Your task to perform on an android device: What's the weather? Image 0: 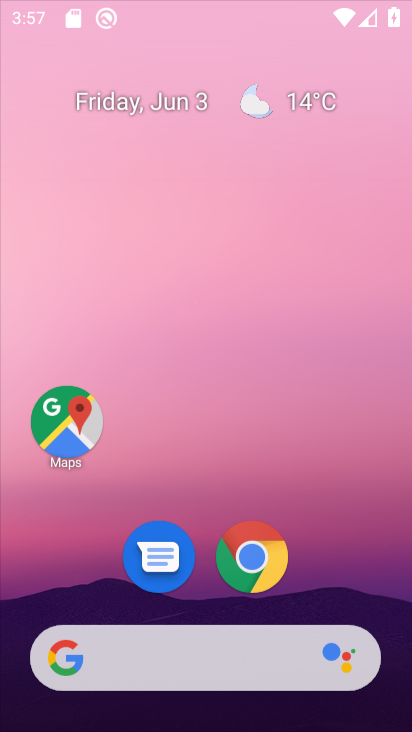
Step 0: drag from (28, 86) to (409, 403)
Your task to perform on an android device: What's the weather? Image 1: 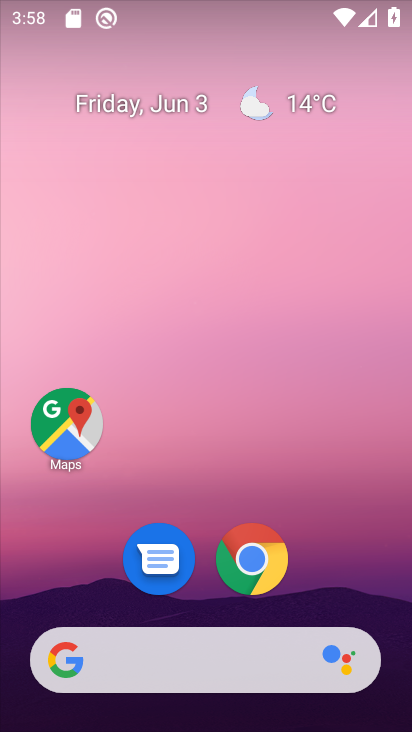
Step 1: click (410, 480)
Your task to perform on an android device: What's the weather? Image 2: 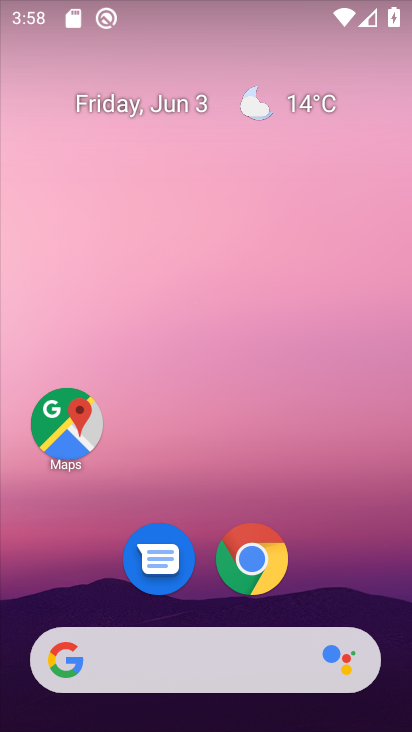
Step 2: click (374, 517)
Your task to perform on an android device: What's the weather? Image 3: 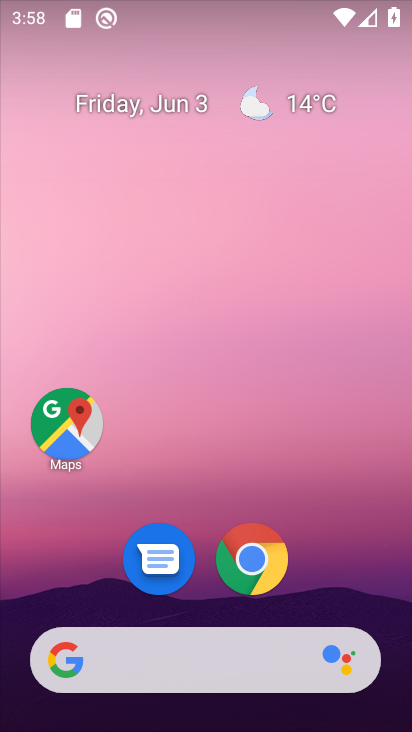
Step 3: drag from (358, 477) to (348, 436)
Your task to perform on an android device: What's the weather? Image 4: 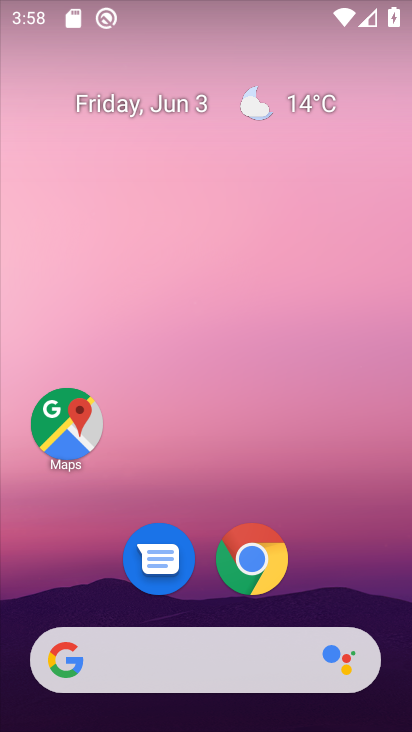
Step 4: drag from (360, 444) to (397, 373)
Your task to perform on an android device: What's the weather? Image 5: 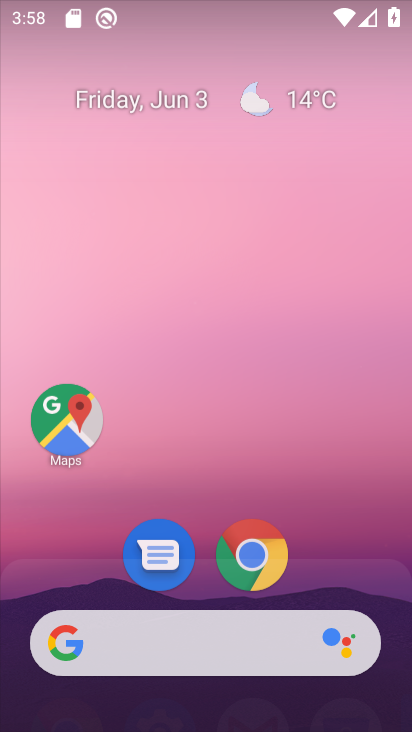
Step 5: drag from (43, 186) to (411, 532)
Your task to perform on an android device: What's the weather? Image 6: 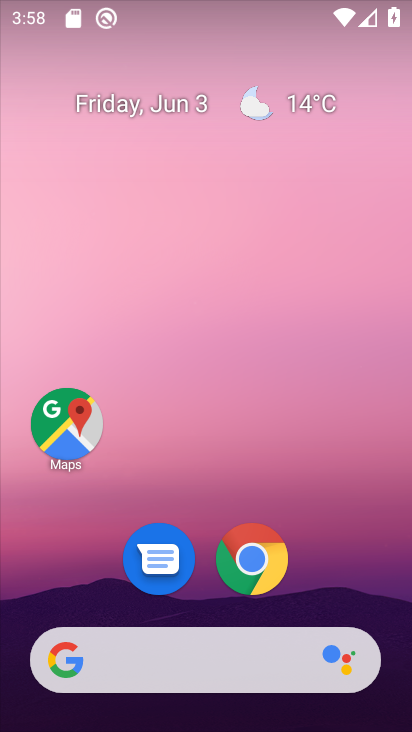
Step 6: drag from (32, 223) to (403, 577)
Your task to perform on an android device: What's the weather? Image 7: 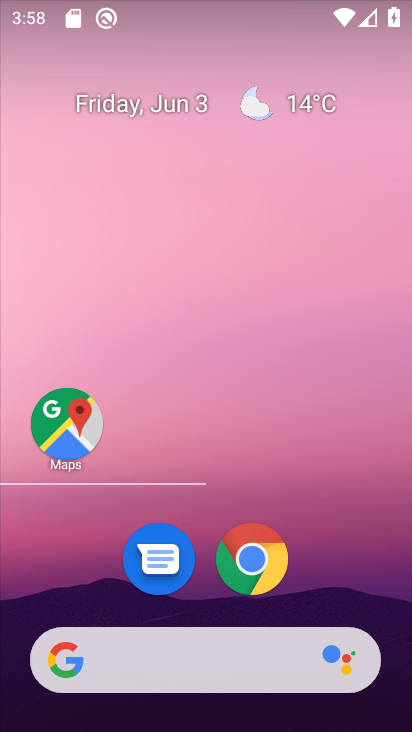
Step 7: drag from (56, 186) to (398, 511)
Your task to perform on an android device: What's the weather? Image 8: 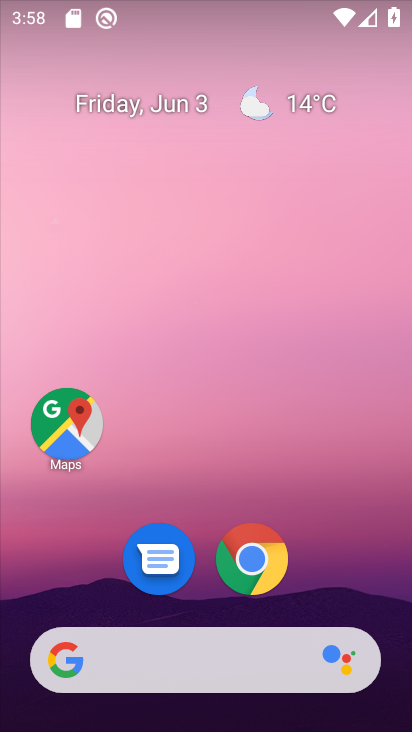
Step 8: drag from (100, 205) to (381, 452)
Your task to perform on an android device: What's the weather? Image 9: 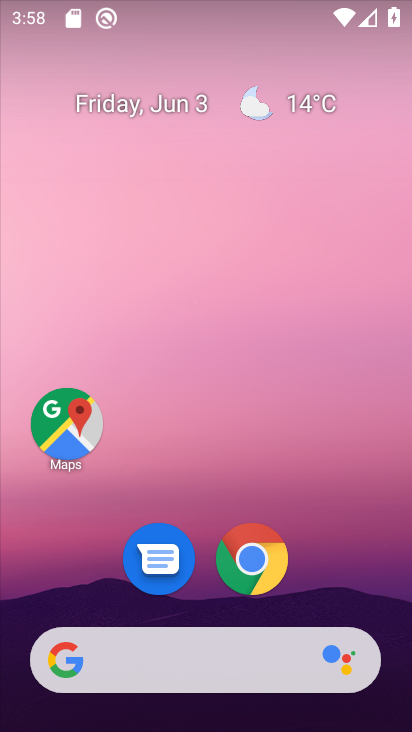
Step 9: drag from (91, 180) to (369, 430)
Your task to perform on an android device: What's the weather? Image 10: 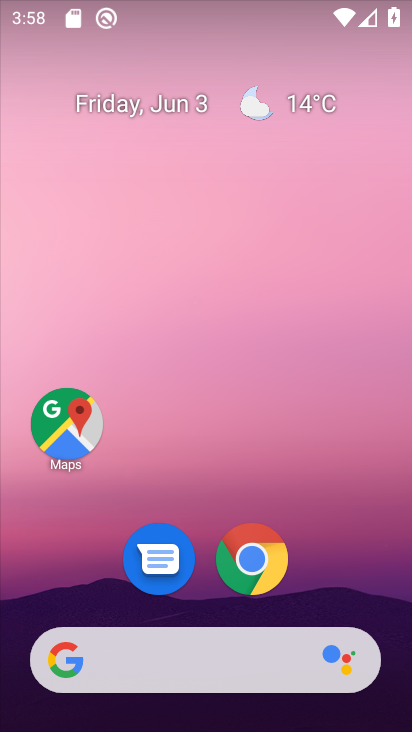
Step 10: drag from (29, 142) to (275, 497)
Your task to perform on an android device: What's the weather? Image 11: 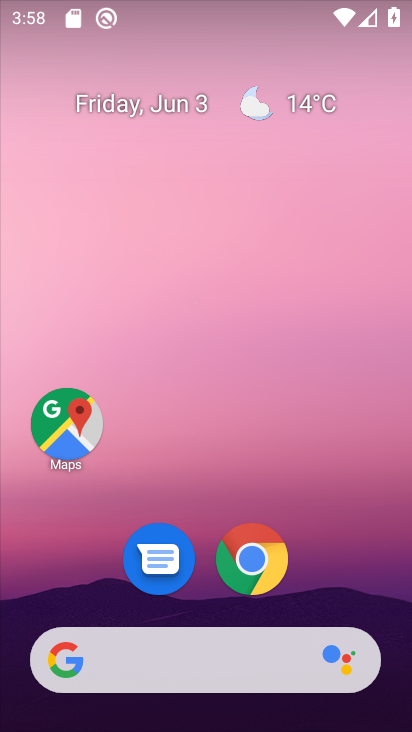
Step 11: drag from (10, 199) to (237, 522)
Your task to perform on an android device: What's the weather? Image 12: 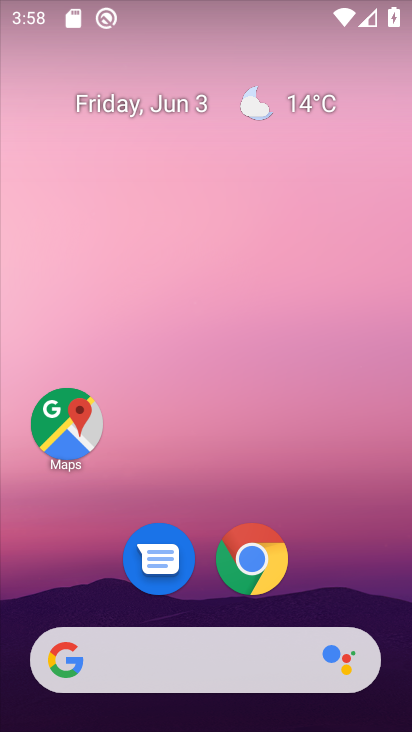
Step 12: drag from (129, 263) to (388, 569)
Your task to perform on an android device: What's the weather? Image 13: 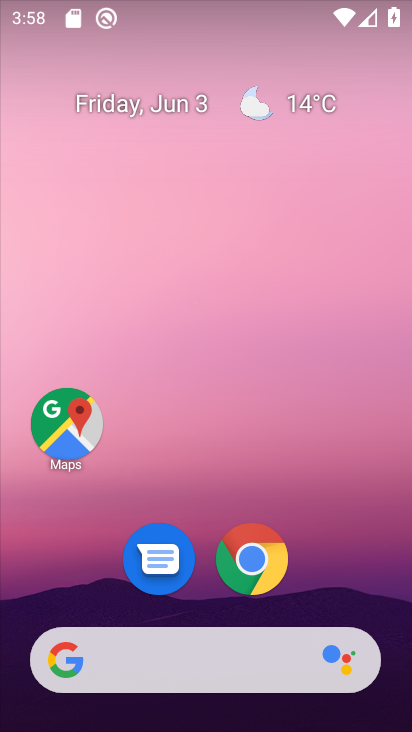
Step 13: drag from (354, 482) to (392, 445)
Your task to perform on an android device: What's the weather? Image 14: 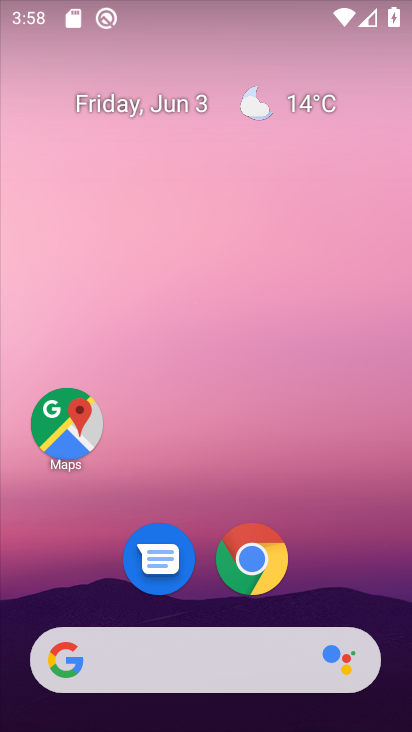
Step 14: drag from (1, 230) to (337, 291)
Your task to perform on an android device: What's the weather? Image 15: 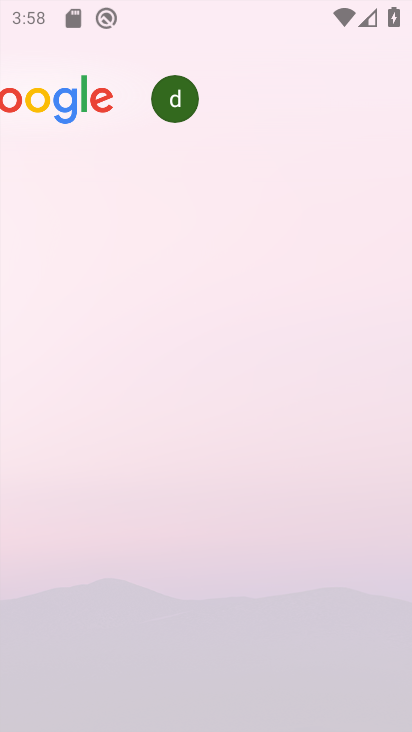
Step 15: click (376, 502)
Your task to perform on an android device: What's the weather? Image 16: 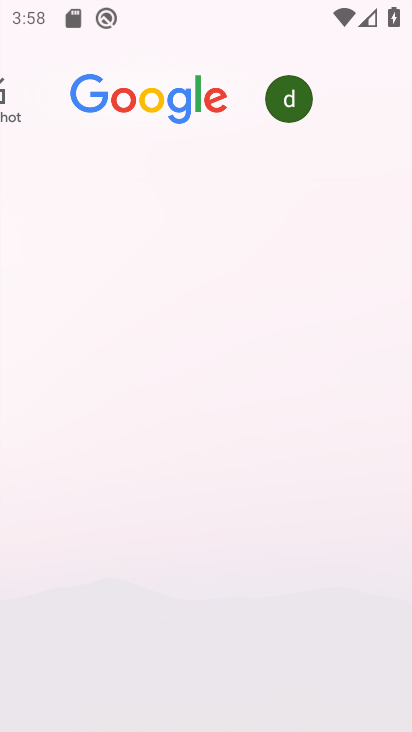
Step 16: click (405, 453)
Your task to perform on an android device: What's the weather? Image 17: 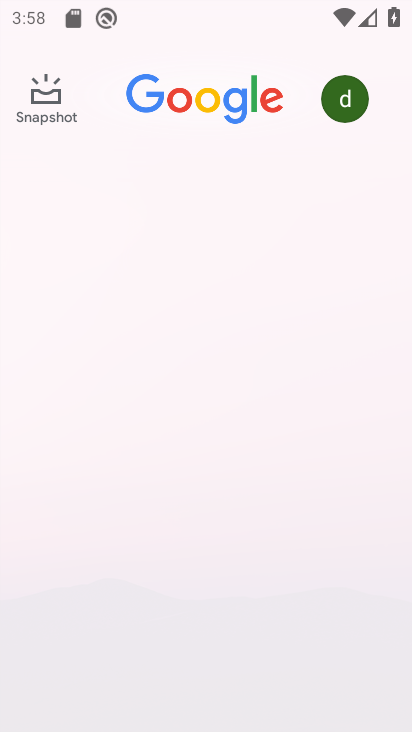
Step 17: task complete